Your task to perform on an android device: Show me popular videos on Youtube Image 0: 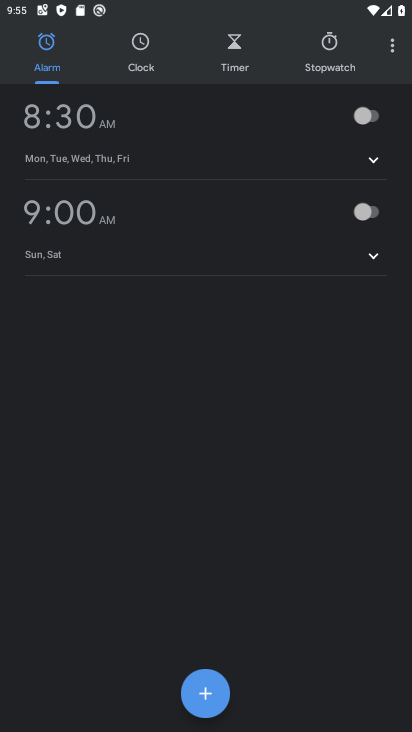
Step 0: press home button
Your task to perform on an android device: Show me popular videos on Youtube Image 1: 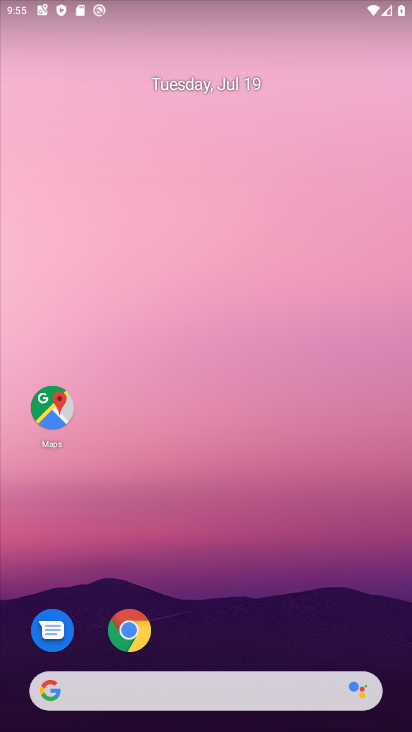
Step 1: drag from (211, 686) to (282, 225)
Your task to perform on an android device: Show me popular videos on Youtube Image 2: 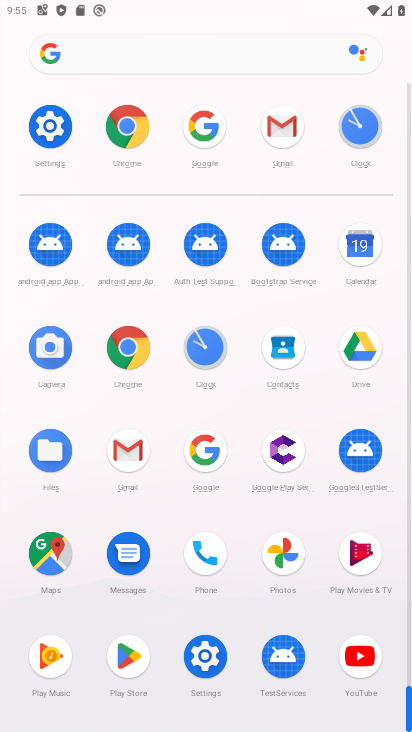
Step 2: click (367, 667)
Your task to perform on an android device: Show me popular videos on Youtube Image 3: 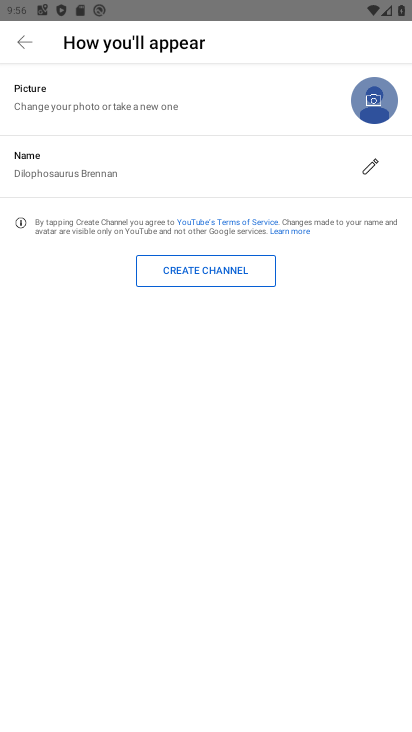
Step 3: press home button
Your task to perform on an android device: Show me popular videos on Youtube Image 4: 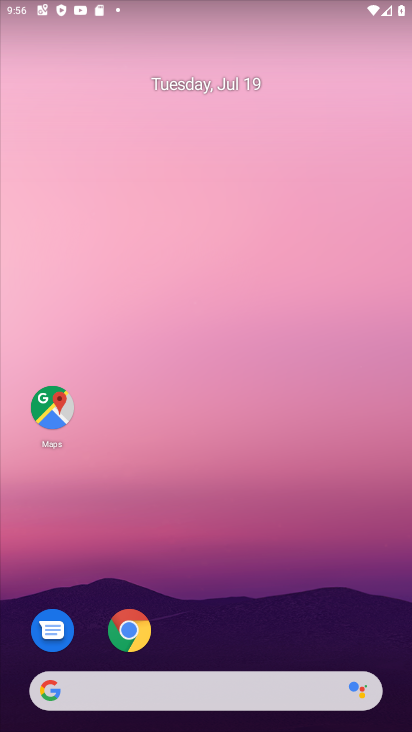
Step 4: drag from (195, 491) to (407, 331)
Your task to perform on an android device: Show me popular videos on Youtube Image 5: 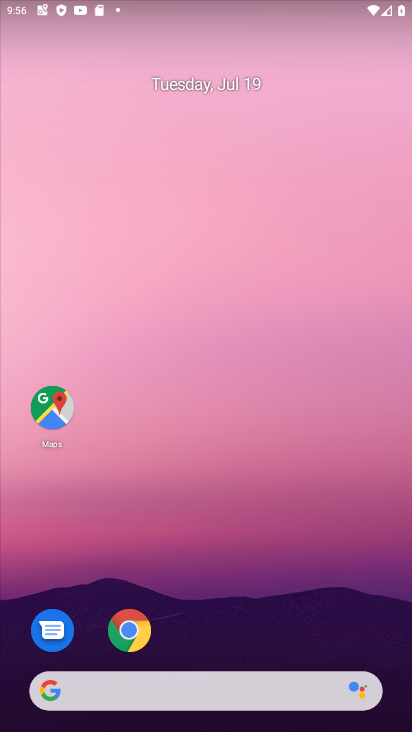
Step 5: drag from (244, 430) to (202, 117)
Your task to perform on an android device: Show me popular videos on Youtube Image 6: 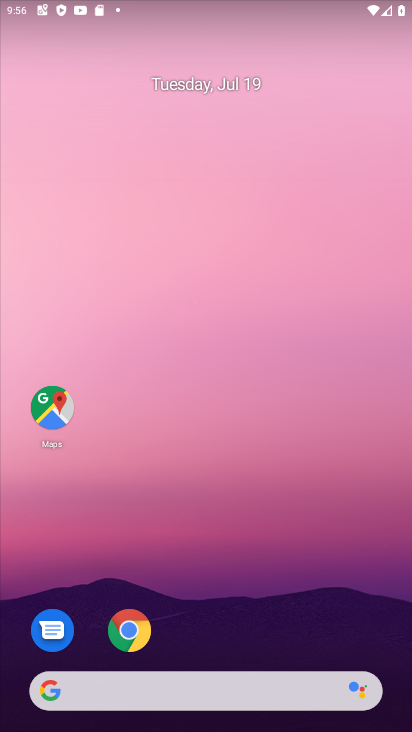
Step 6: drag from (181, 590) to (410, 408)
Your task to perform on an android device: Show me popular videos on Youtube Image 7: 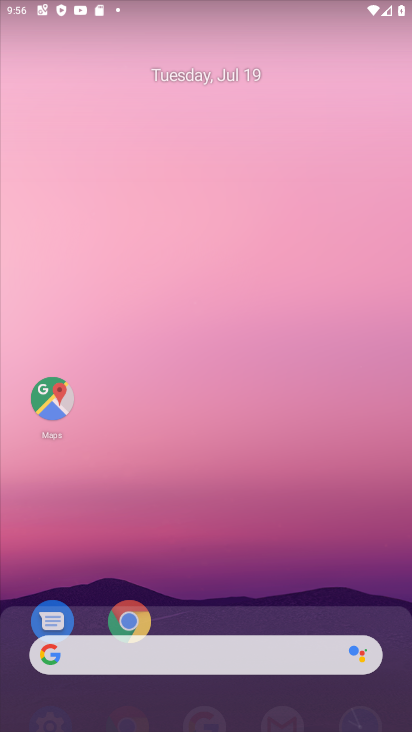
Step 7: drag from (275, 563) to (315, 124)
Your task to perform on an android device: Show me popular videos on Youtube Image 8: 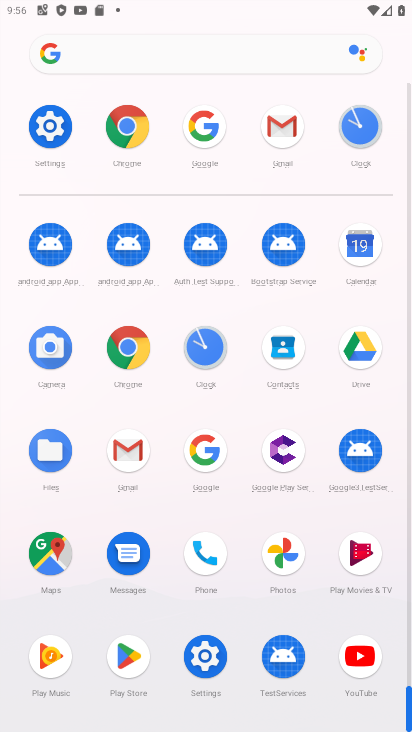
Step 8: drag from (240, 580) to (288, 274)
Your task to perform on an android device: Show me popular videos on Youtube Image 9: 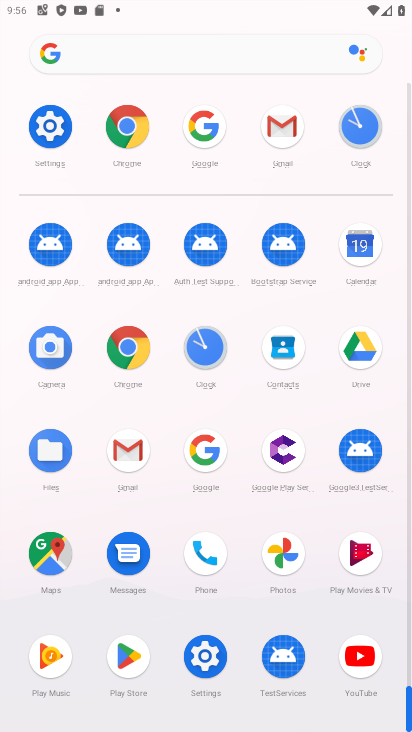
Step 9: click (365, 671)
Your task to perform on an android device: Show me popular videos on Youtube Image 10: 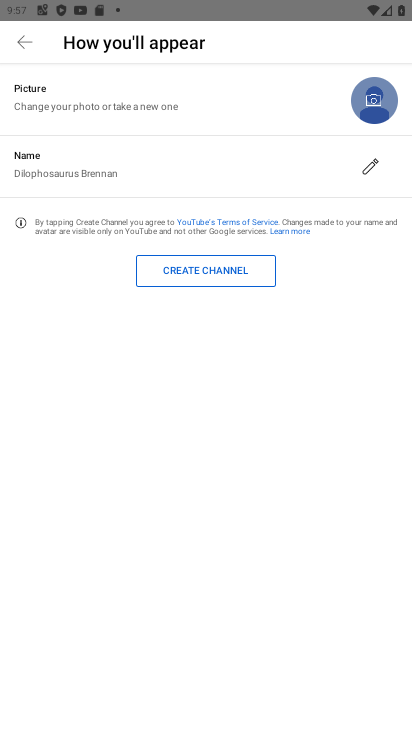
Step 10: task complete